Your task to perform on an android device: Open Chrome and go to the settings page Image 0: 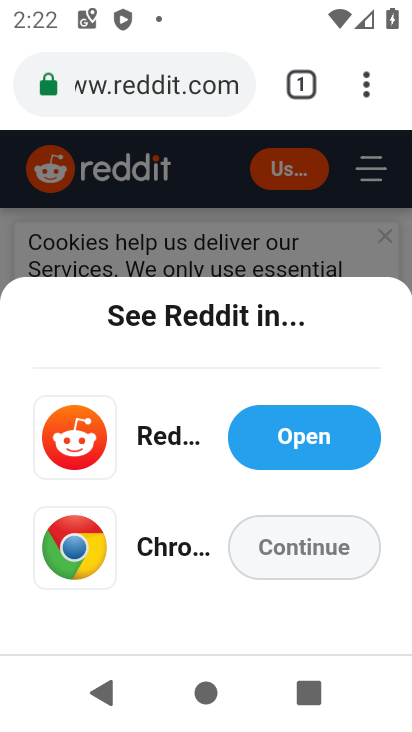
Step 0: press home button
Your task to perform on an android device: Open Chrome and go to the settings page Image 1: 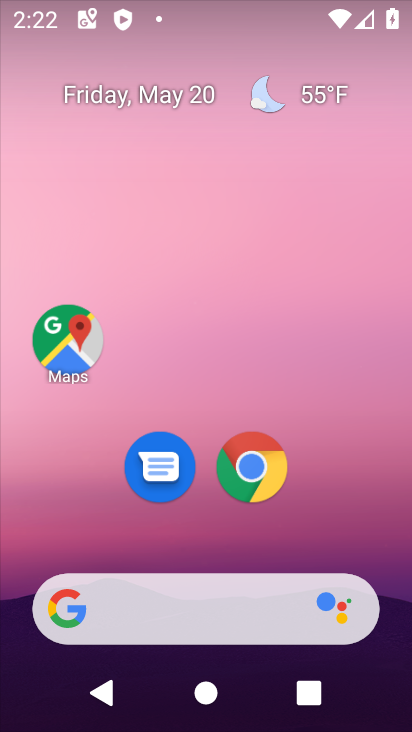
Step 1: click (253, 463)
Your task to perform on an android device: Open Chrome and go to the settings page Image 2: 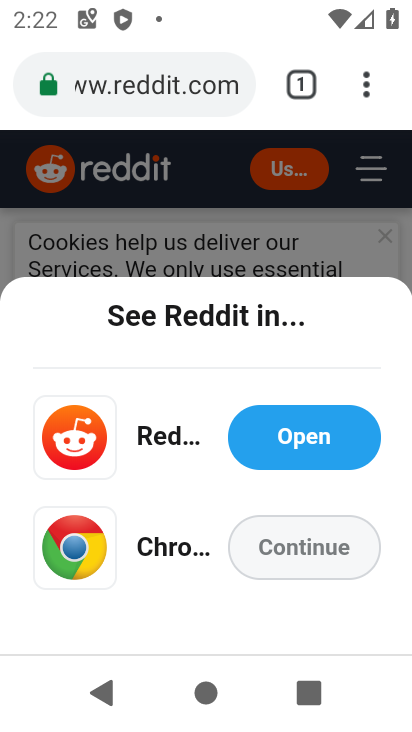
Step 2: click (361, 83)
Your task to perform on an android device: Open Chrome and go to the settings page Image 3: 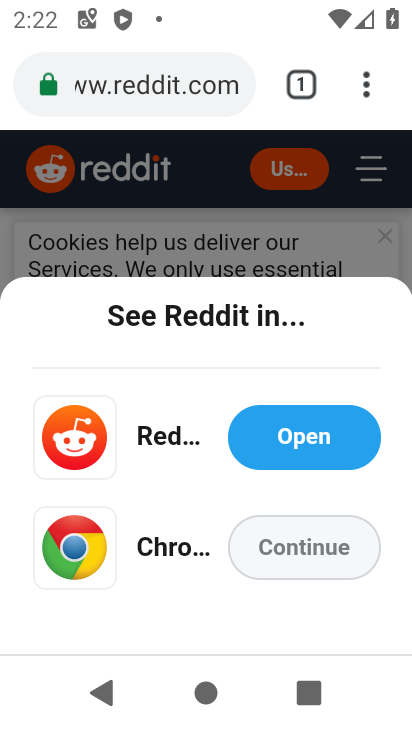
Step 3: click (360, 88)
Your task to perform on an android device: Open Chrome and go to the settings page Image 4: 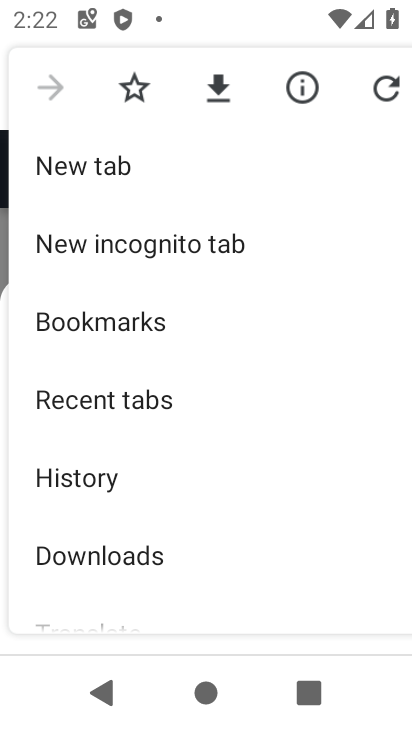
Step 4: drag from (125, 602) to (129, 341)
Your task to perform on an android device: Open Chrome and go to the settings page Image 5: 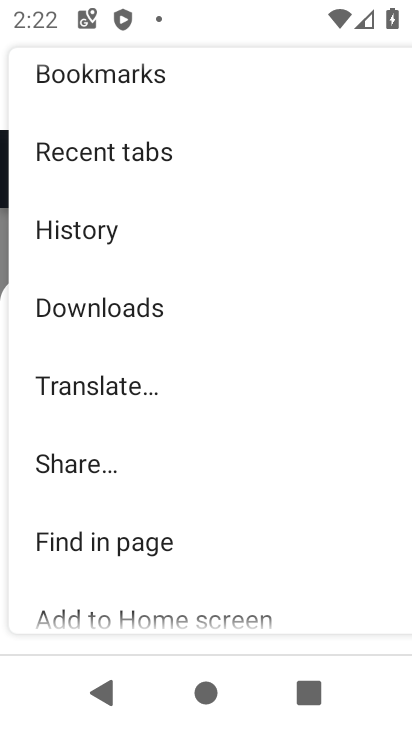
Step 5: drag from (123, 572) to (112, 323)
Your task to perform on an android device: Open Chrome and go to the settings page Image 6: 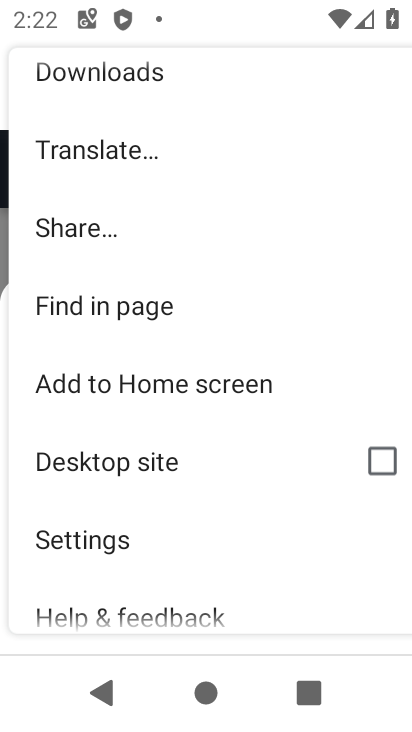
Step 6: click (130, 546)
Your task to perform on an android device: Open Chrome and go to the settings page Image 7: 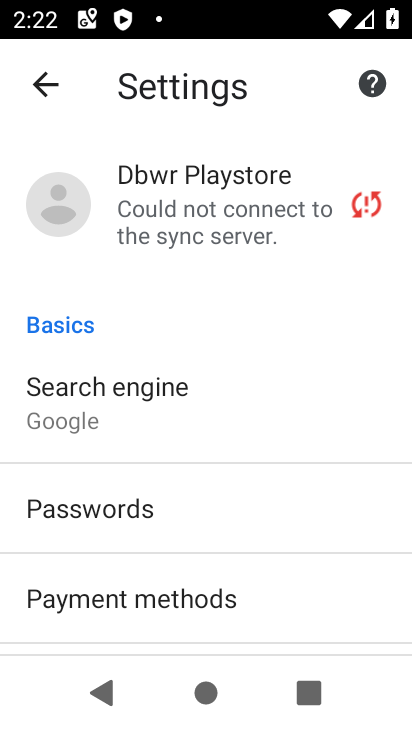
Step 7: task complete